Your task to perform on an android device: Open internet settings Image 0: 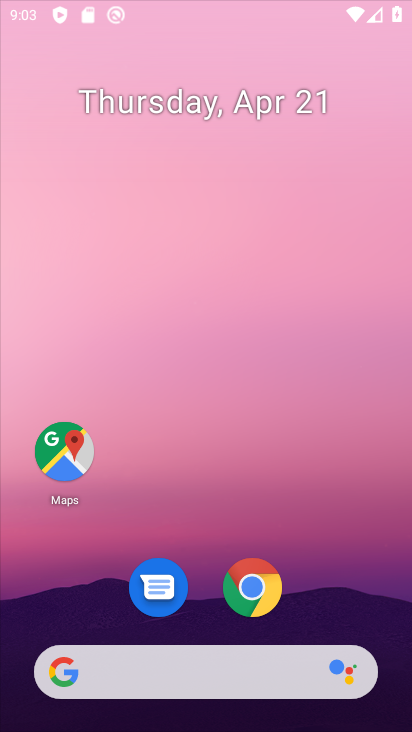
Step 0: drag from (186, 586) to (311, 73)
Your task to perform on an android device: Open internet settings Image 1: 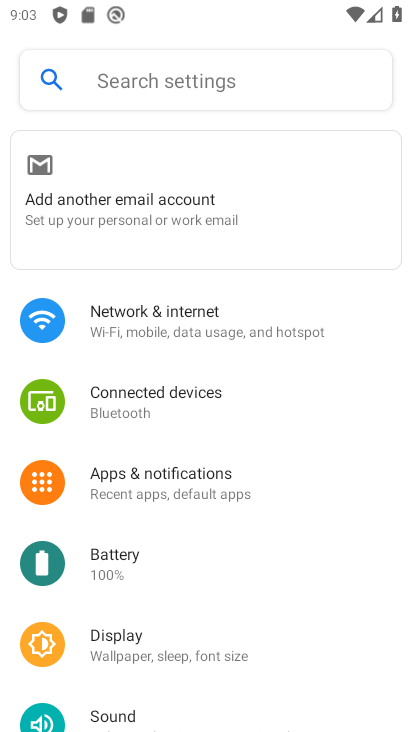
Step 1: press back button
Your task to perform on an android device: Open internet settings Image 2: 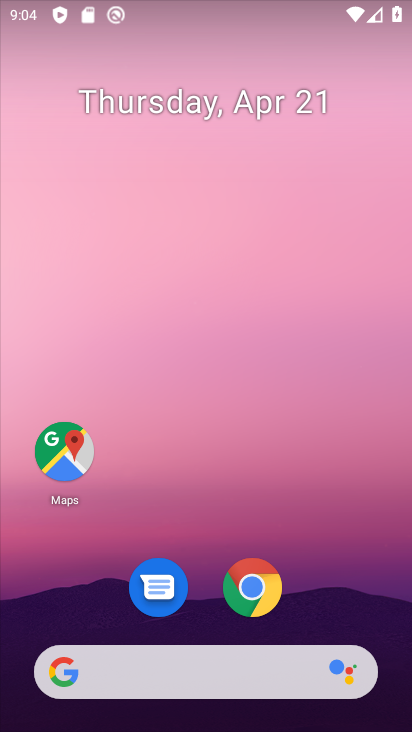
Step 2: drag from (204, 573) to (292, 52)
Your task to perform on an android device: Open internet settings Image 3: 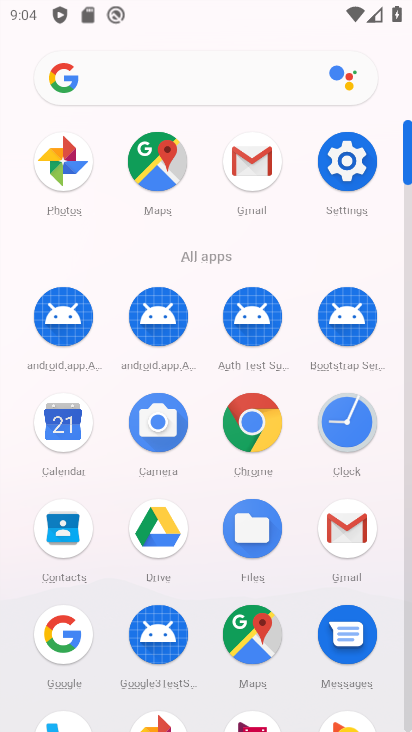
Step 3: click (355, 164)
Your task to perform on an android device: Open internet settings Image 4: 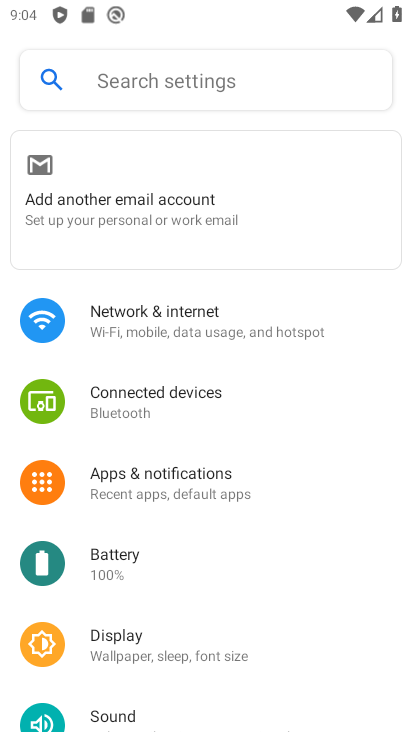
Step 4: click (161, 308)
Your task to perform on an android device: Open internet settings Image 5: 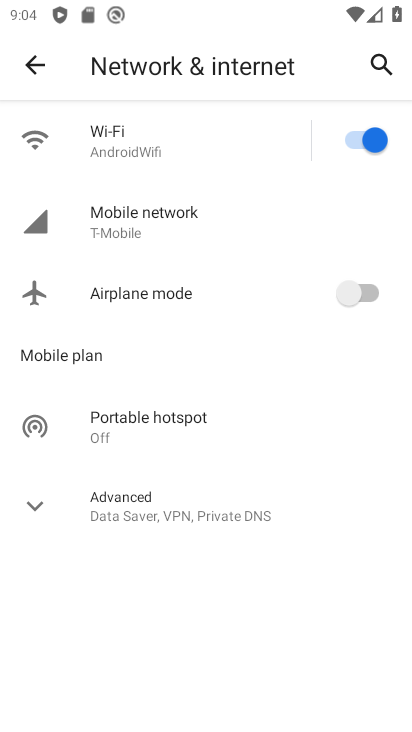
Step 5: task complete